Your task to perform on an android device: View the shopping cart on amazon.com. Add energizer triple a to the cart on amazon.com Image 0: 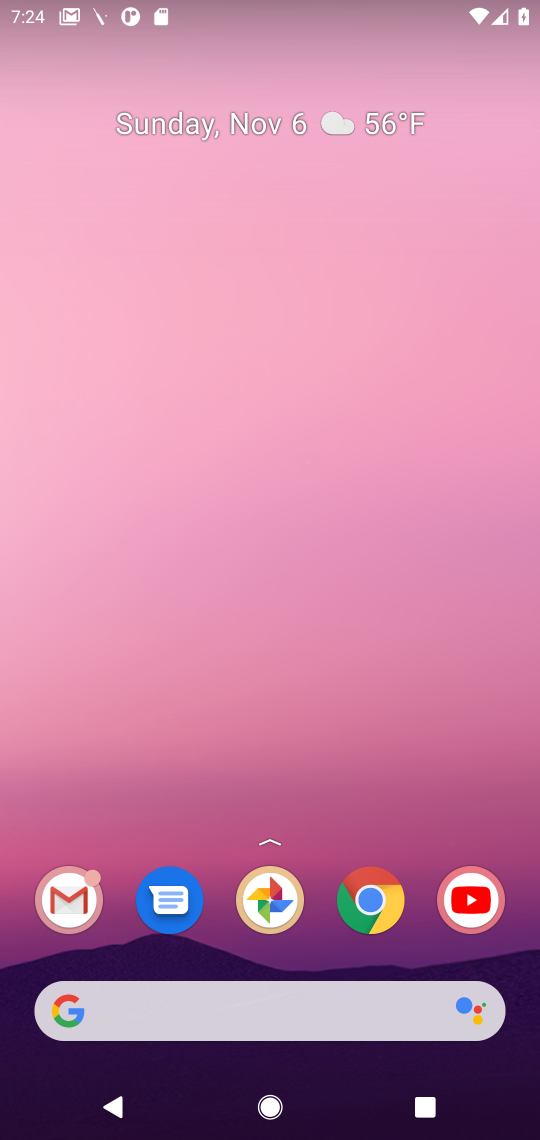
Step 0: drag from (197, 963) to (141, 173)
Your task to perform on an android device: View the shopping cart on amazon.com. Add energizer triple a to the cart on amazon.com Image 1: 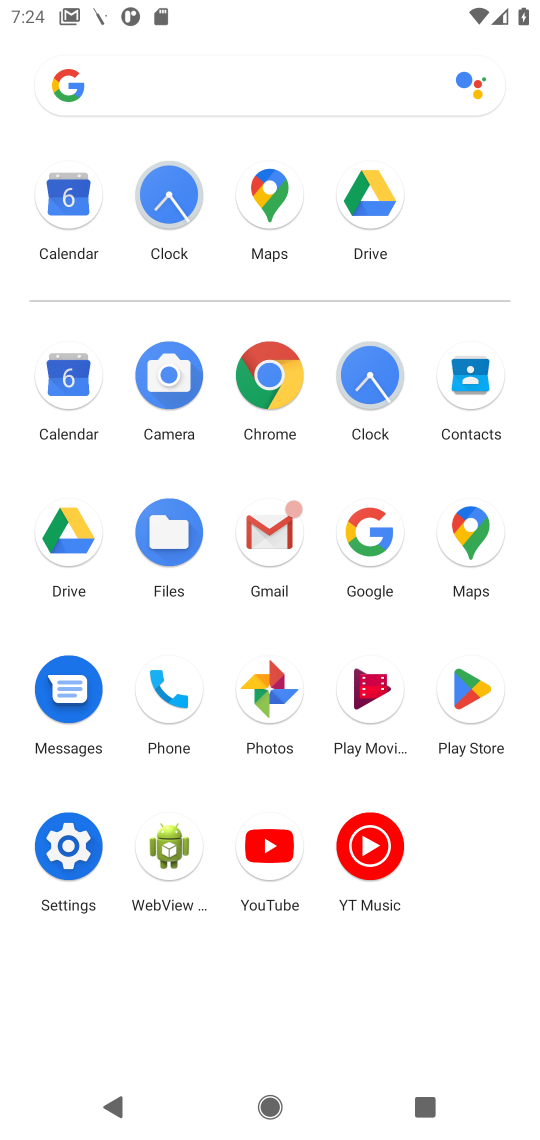
Step 1: click (278, 374)
Your task to perform on an android device: View the shopping cart on amazon.com. Add energizer triple a to the cart on amazon.com Image 2: 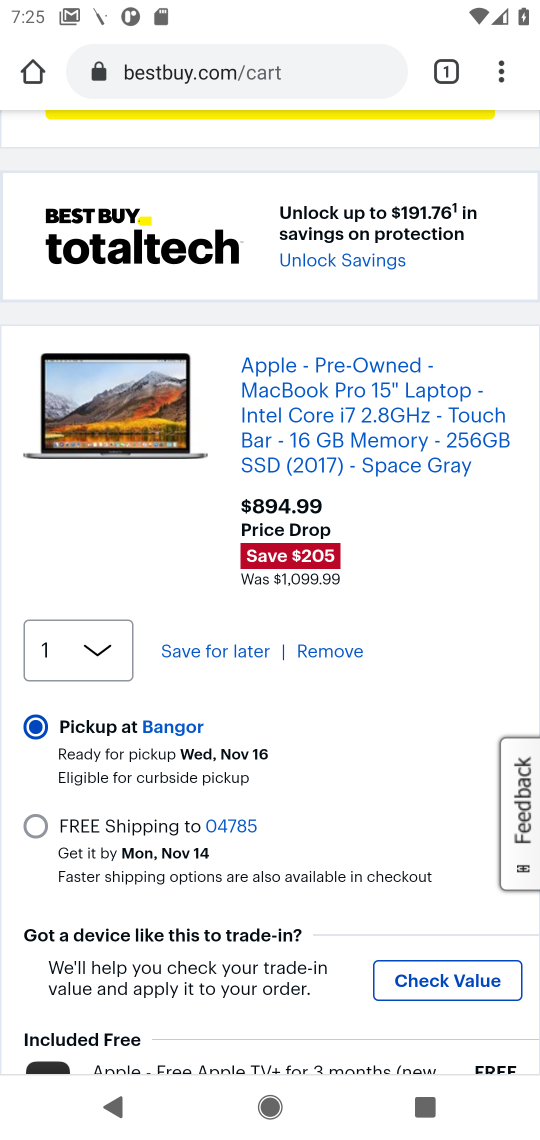
Step 2: click (317, 70)
Your task to perform on an android device: View the shopping cart on amazon.com. Add energizer triple a to the cart on amazon.com Image 3: 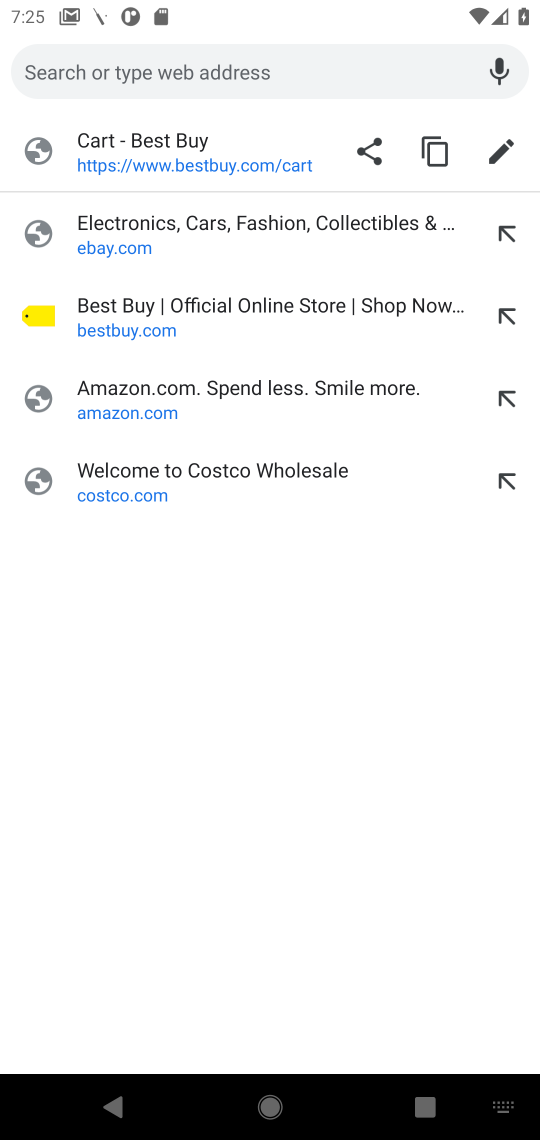
Step 3: type "amazon.com"
Your task to perform on an android device: View the shopping cart on amazon.com. Add energizer triple a to the cart on amazon.com Image 4: 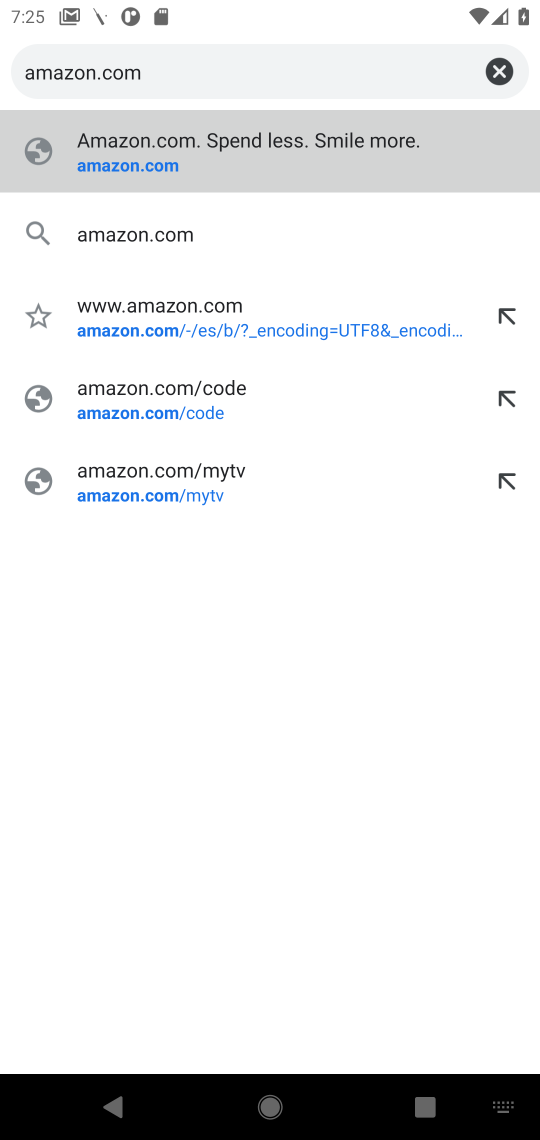
Step 4: press enter
Your task to perform on an android device: View the shopping cart on amazon.com. Add energizer triple a to the cart on amazon.com Image 5: 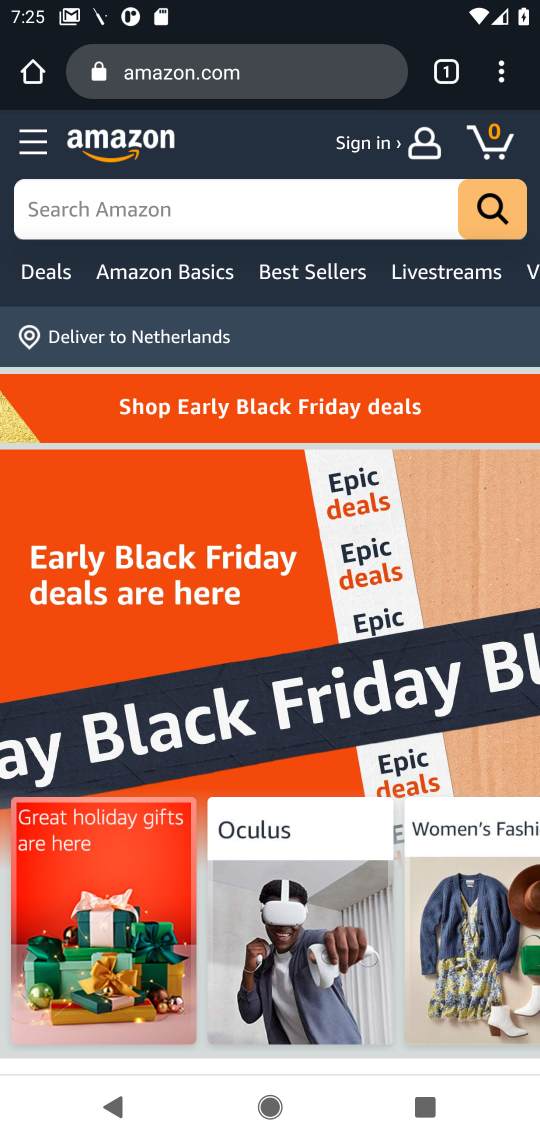
Step 5: click (504, 137)
Your task to perform on an android device: View the shopping cart on amazon.com. Add energizer triple a to the cart on amazon.com Image 6: 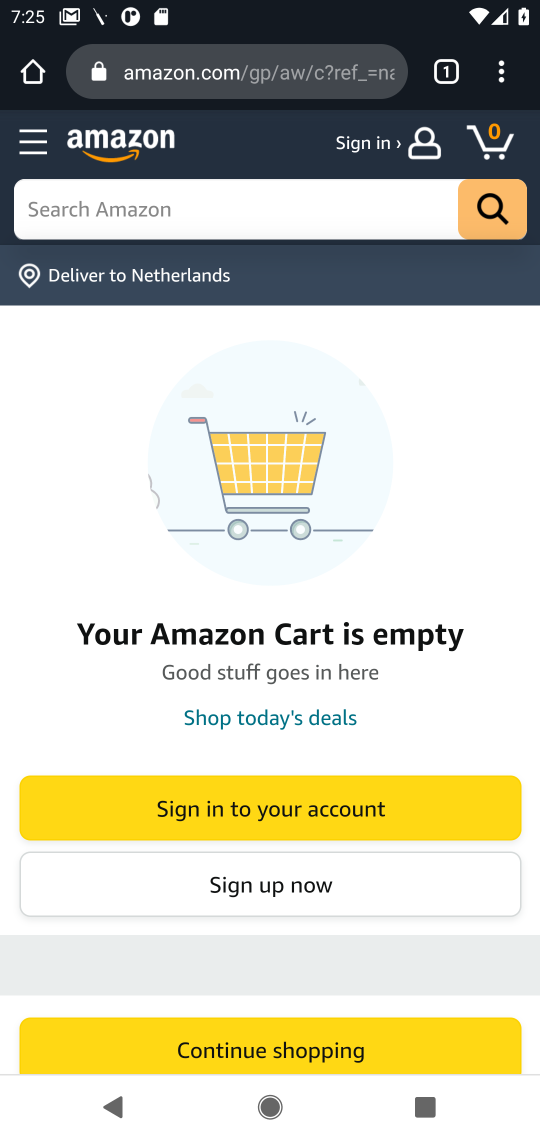
Step 6: click (283, 213)
Your task to perform on an android device: View the shopping cart on amazon.com. Add energizer triple a to the cart on amazon.com Image 7: 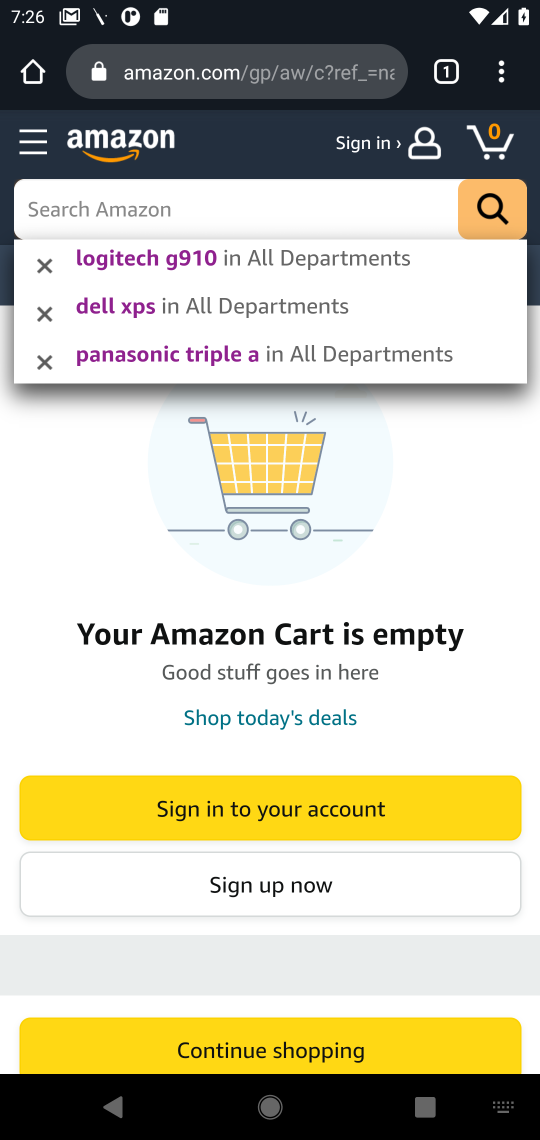
Step 7: type "energizer triple a"
Your task to perform on an android device: View the shopping cart on amazon.com. Add energizer triple a to the cart on amazon.com Image 8: 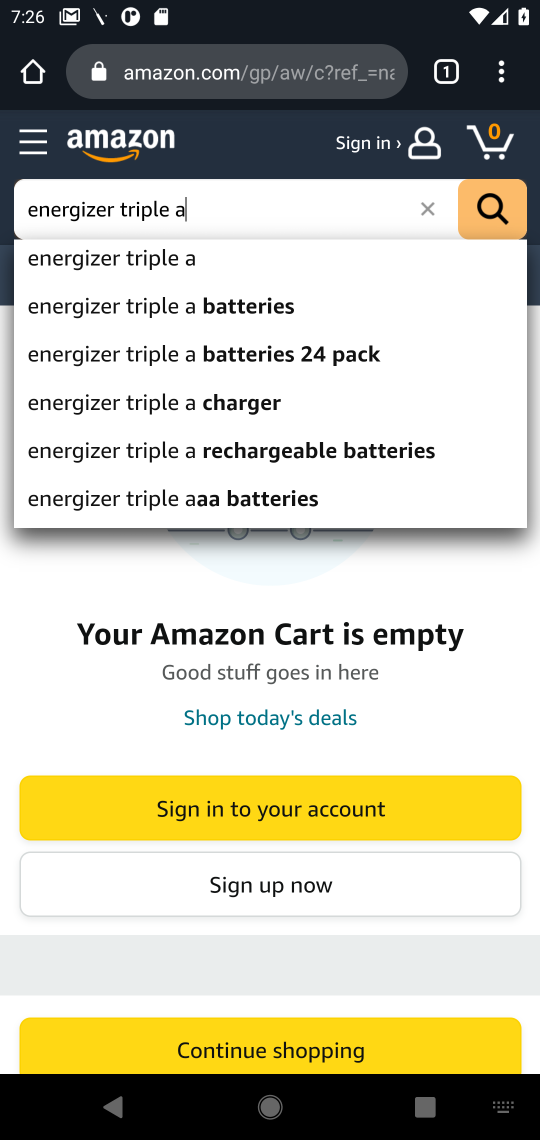
Step 8: press enter
Your task to perform on an android device: View the shopping cart on amazon.com. Add energizer triple a to the cart on amazon.com Image 9: 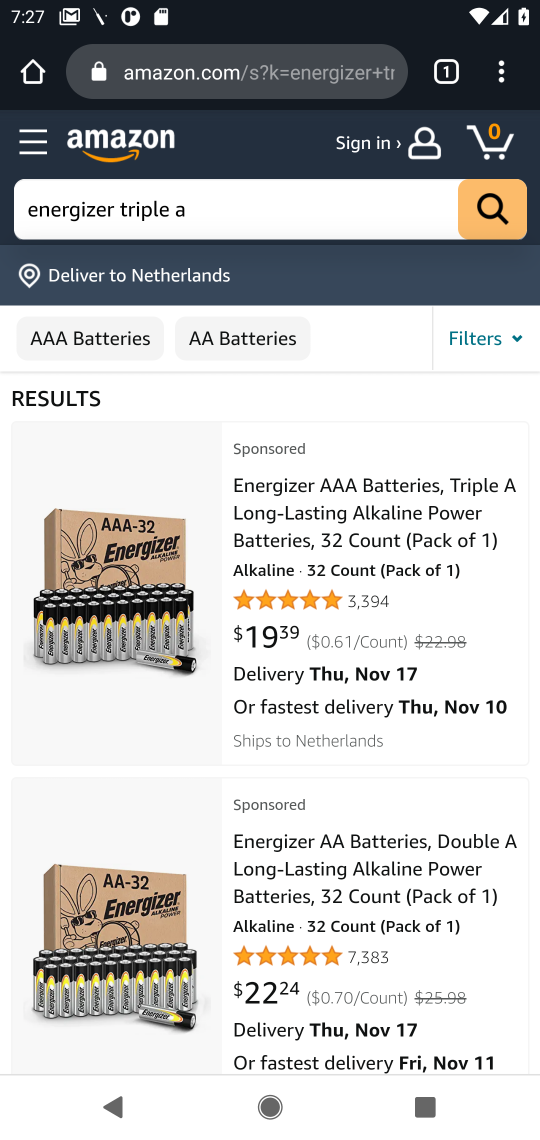
Step 9: drag from (334, 982) to (311, 278)
Your task to perform on an android device: View the shopping cart on amazon.com. Add energizer triple a to the cart on amazon.com Image 10: 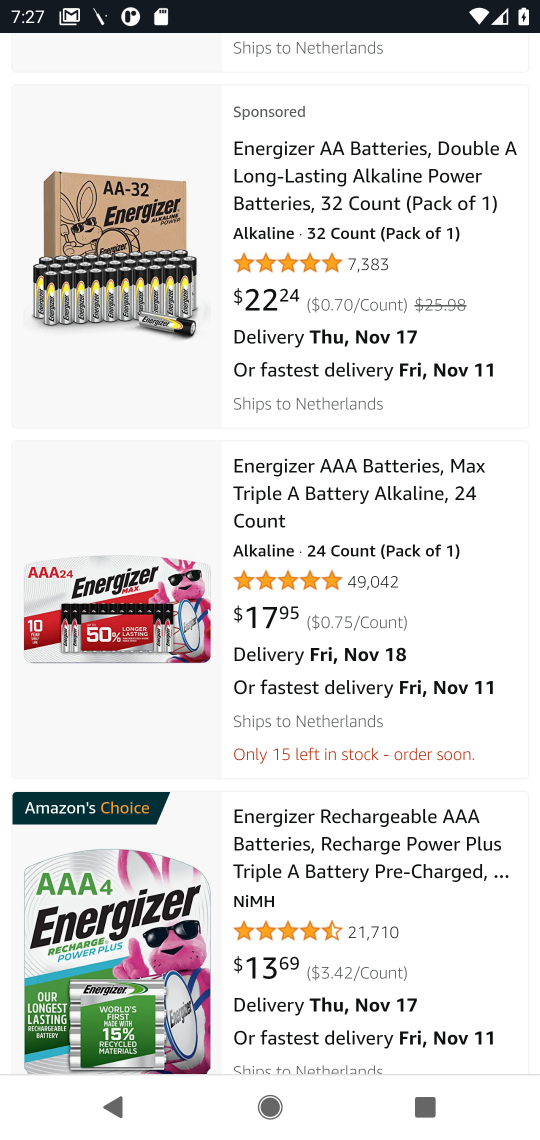
Step 10: click (309, 481)
Your task to perform on an android device: View the shopping cart on amazon.com. Add energizer triple a to the cart on amazon.com Image 11: 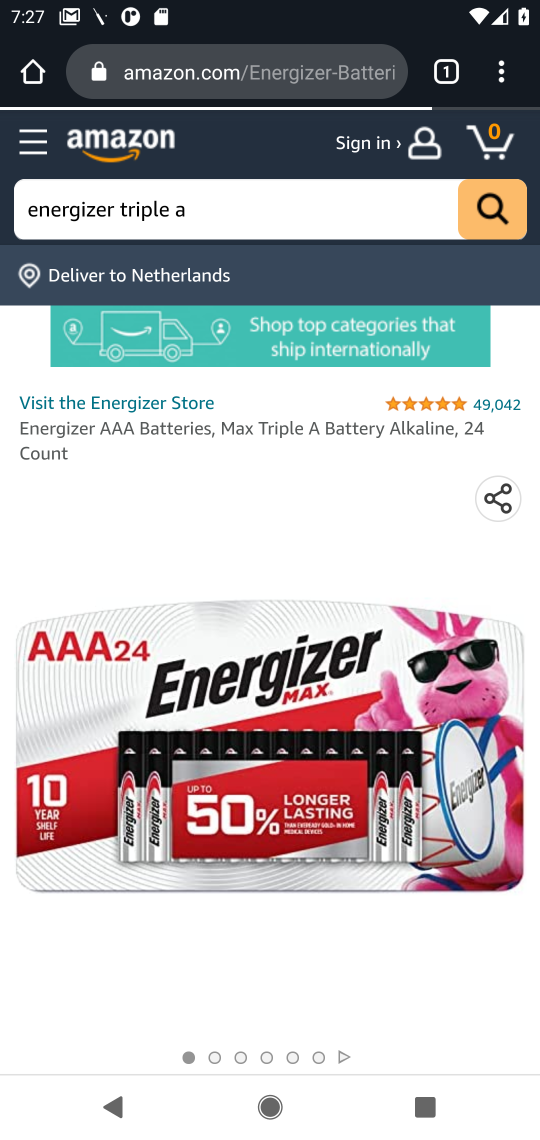
Step 11: drag from (305, 802) to (261, 272)
Your task to perform on an android device: View the shopping cart on amazon.com. Add energizer triple a to the cart on amazon.com Image 12: 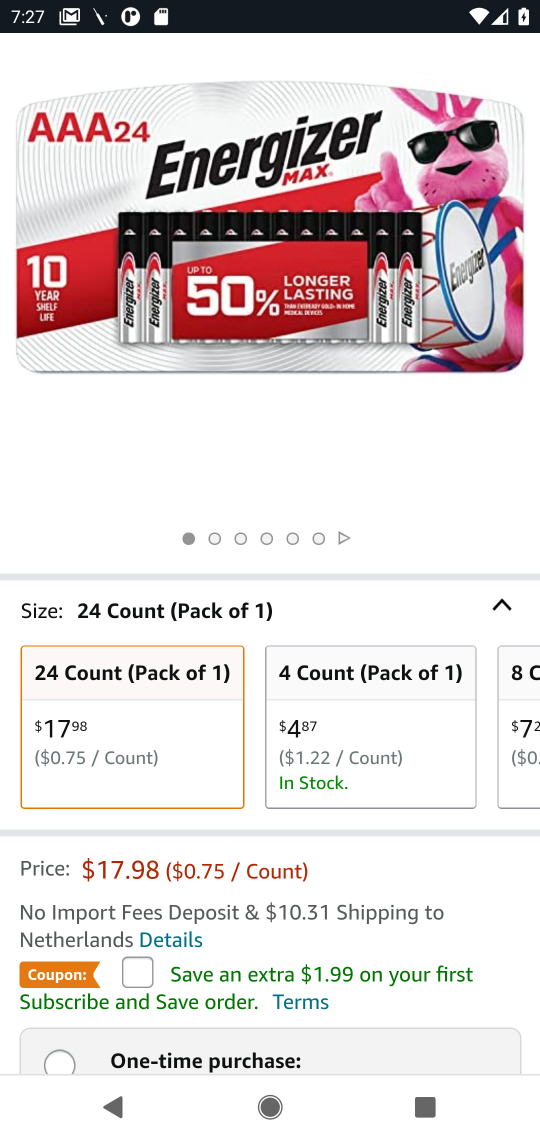
Step 12: drag from (337, 764) to (283, 310)
Your task to perform on an android device: View the shopping cart on amazon.com. Add energizer triple a to the cart on amazon.com Image 13: 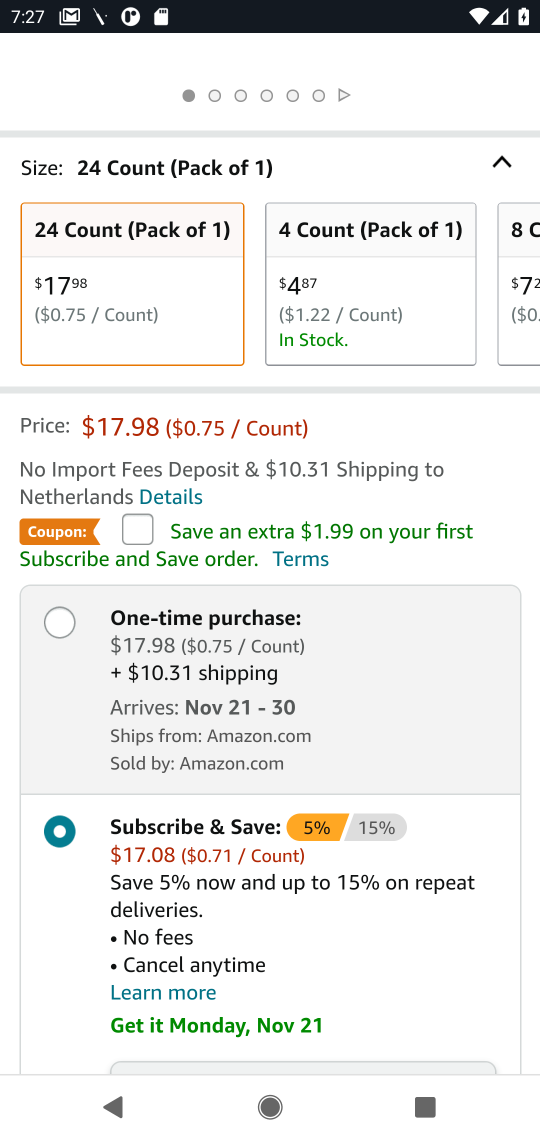
Step 13: drag from (234, 861) to (255, 505)
Your task to perform on an android device: View the shopping cart on amazon.com. Add energizer triple a to the cart on amazon.com Image 14: 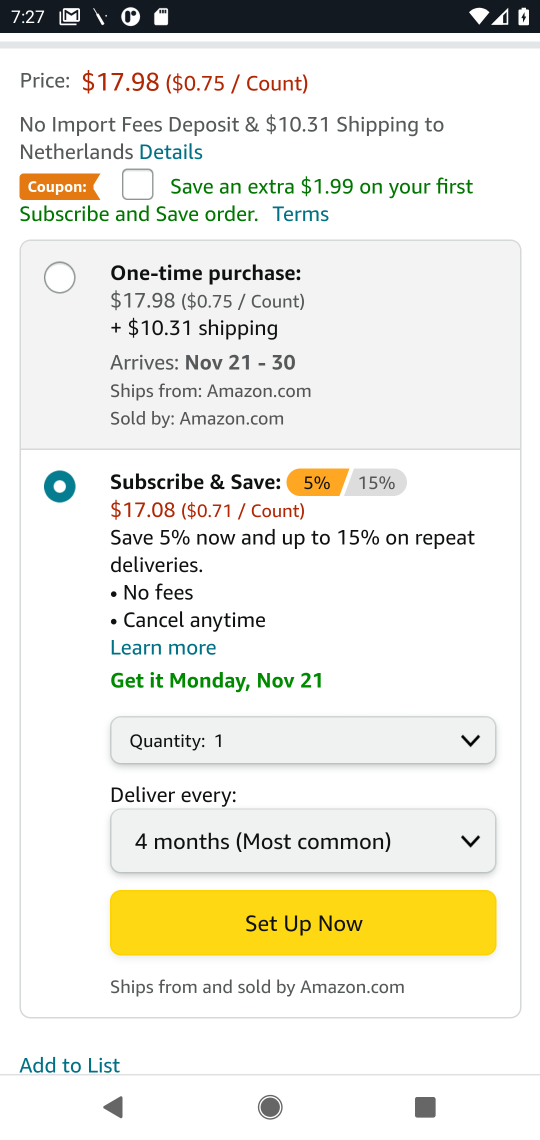
Step 14: click (146, 282)
Your task to perform on an android device: View the shopping cart on amazon.com. Add energizer triple a to the cart on amazon.com Image 15: 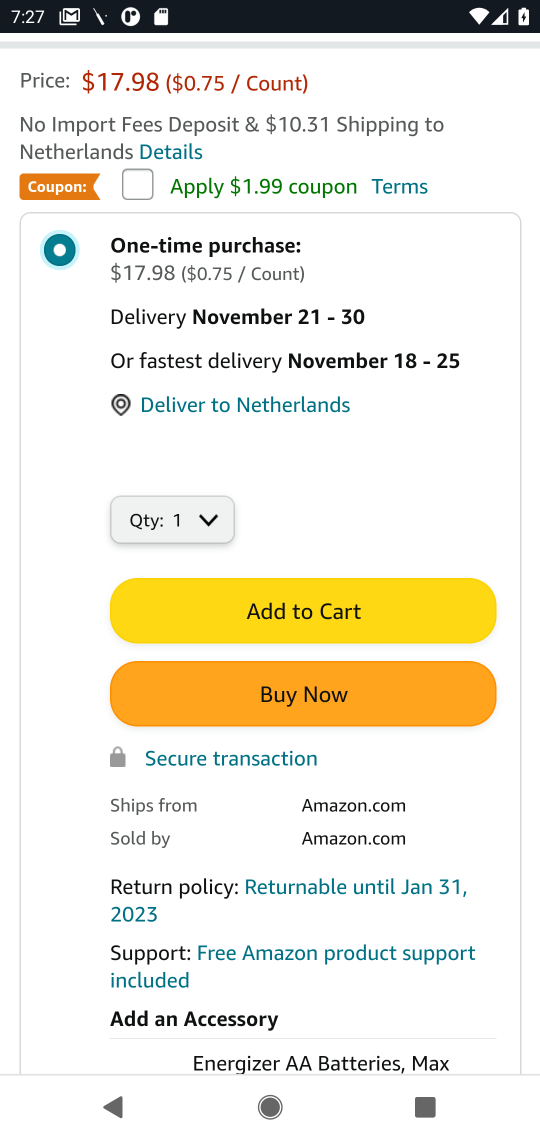
Step 15: drag from (376, 200) to (374, 529)
Your task to perform on an android device: View the shopping cart on amazon.com. Add energizer triple a to the cart on amazon.com Image 16: 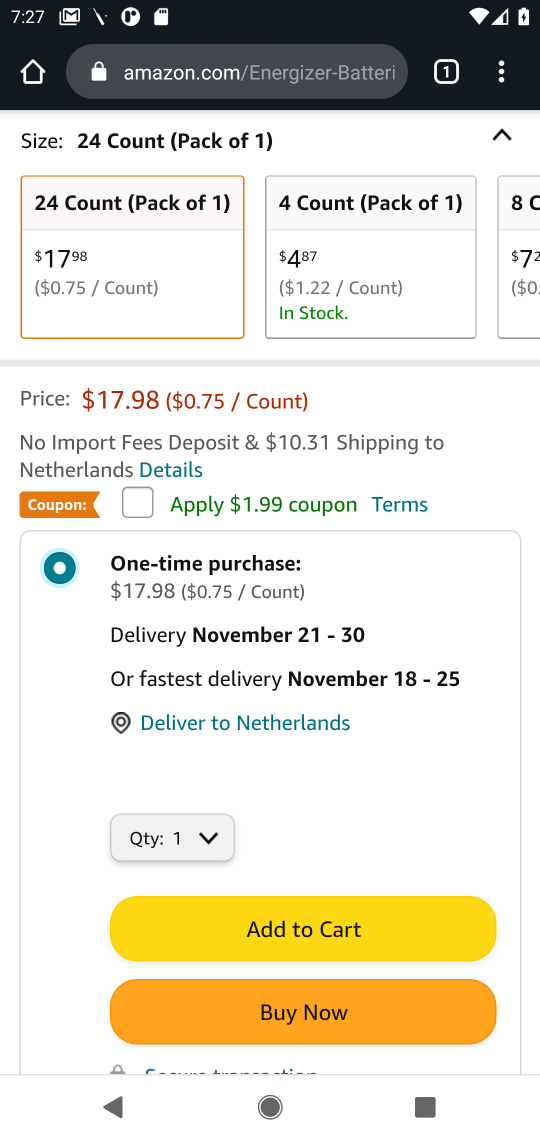
Step 16: click (364, 936)
Your task to perform on an android device: View the shopping cart on amazon.com. Add energizer triple a to the cart on amazon.com Image 17: 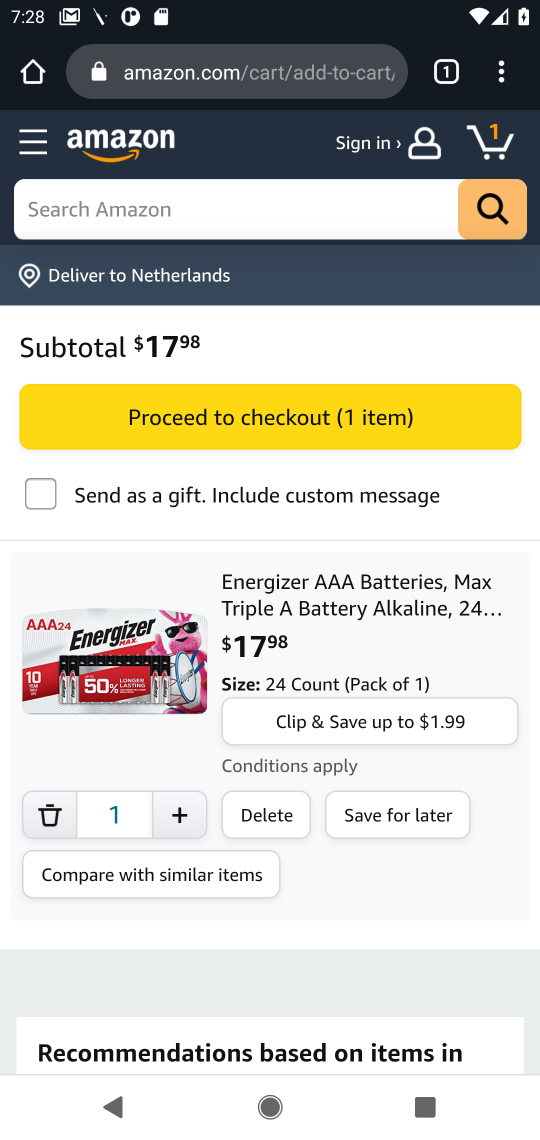
Step 17: task complete